Your task to perform on an android device: Check the weather Image 0: 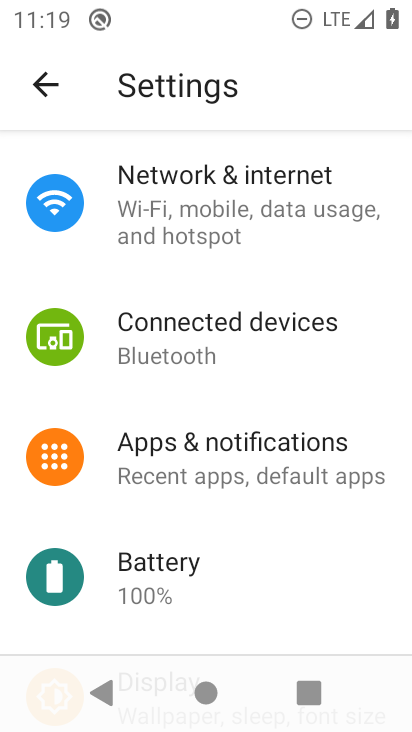
Step 0: click (348, 637)
Your task to perform on an android device: Check the weather Image 1: 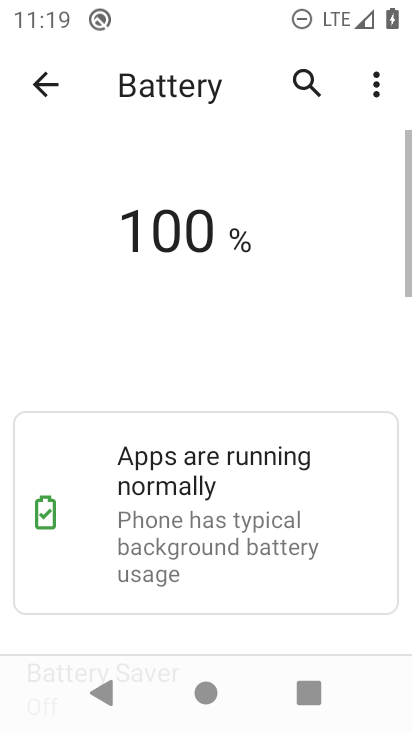
Step 1: drag from (238, 581) to (342, 261)
Your task to perform on an android device: Check the weather Image 2: 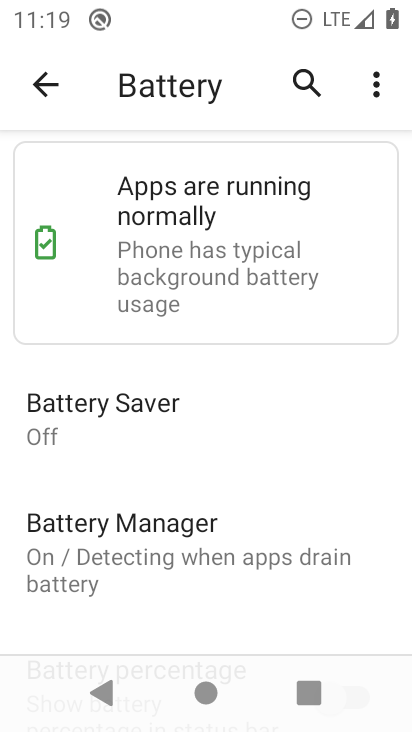
Step 2: press home button
Your task to perform on an android device: Check the weather Image 3: 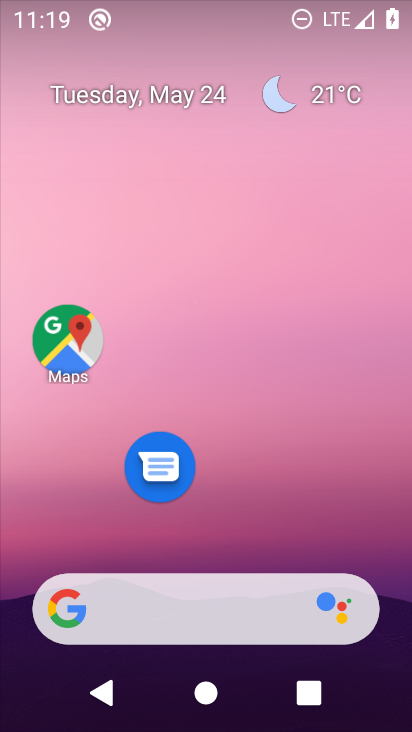
Step 3: drag from (226, 573) to (255, 222)
Your task to perform on an android device: Check the weather Image 4: 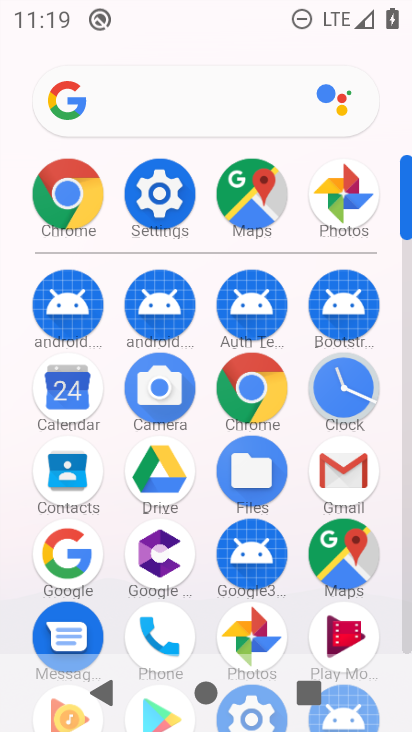
Step 4: click (213, 81)
Your task to perform on an android device: Check the weather Image 5: 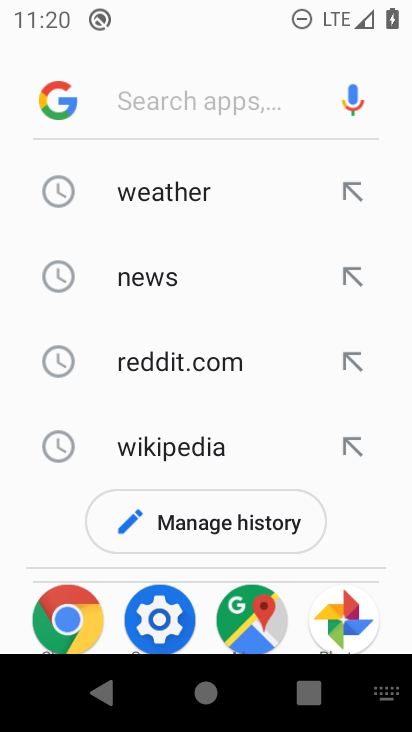
Step 5: click (179, 188)
Your task to perform on an android device: Check the weather Image 6: 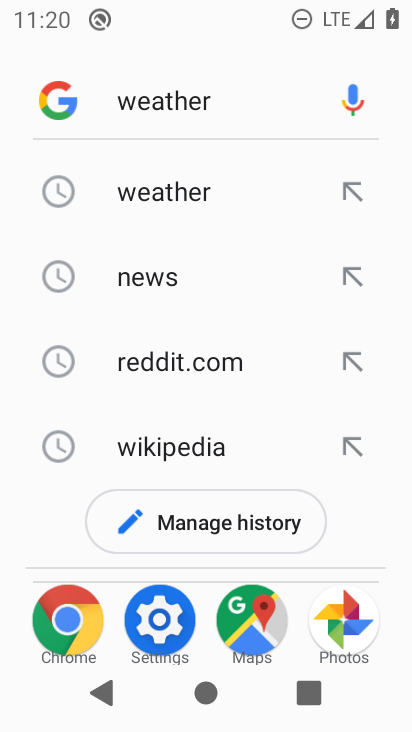
Step 6: task complete